Your task to perform on an android device: Open privacy settings Image 0: 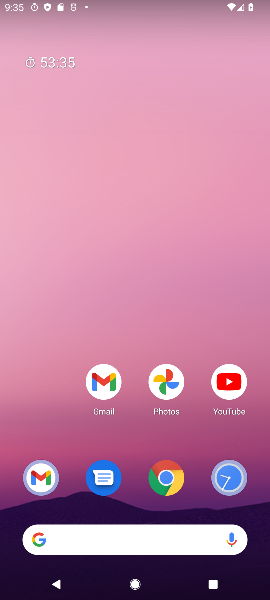
Step 0: press home button
Your task to perform on an android device: Open privacy settings Image 1: 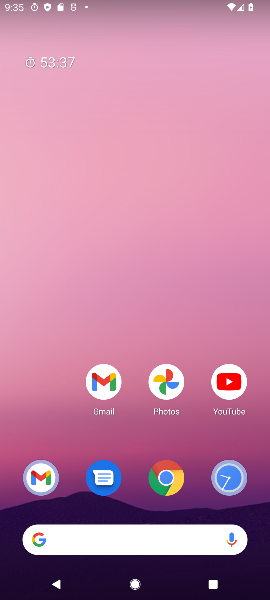
Step 1: drag from (154, 480) to (139, 60)
Your task to perform on an android device: Open privacy settings Image 2: 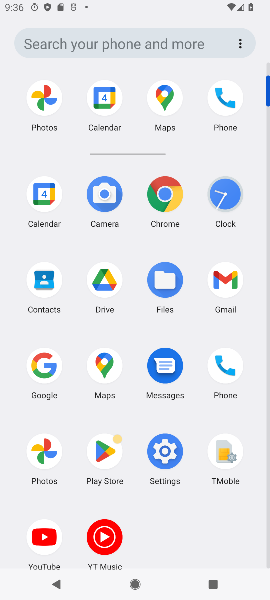
Step 2: click (175, 445)
Your task to perform on an android device: Open privacy settings Image 3: 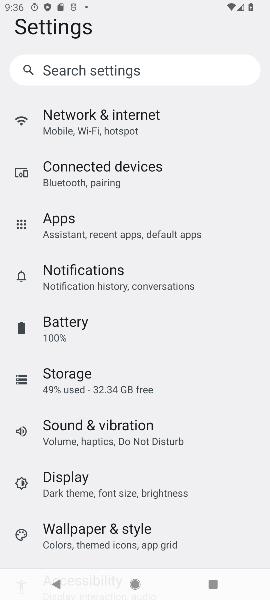
Step 3: drag from (95, 476) to (85, 125)
Your task to perform on an android device: Open privacy settings Image 4: 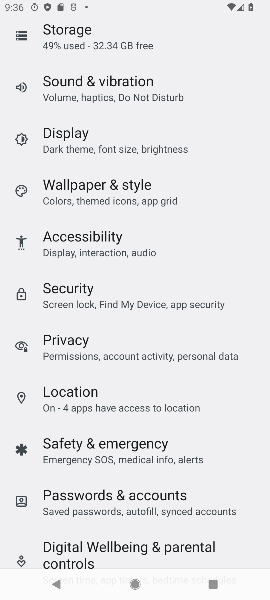
Step 4: drag from (85, 125) to (96, 243)
Your task to perform on an android device: Open privacy settings Image 5: 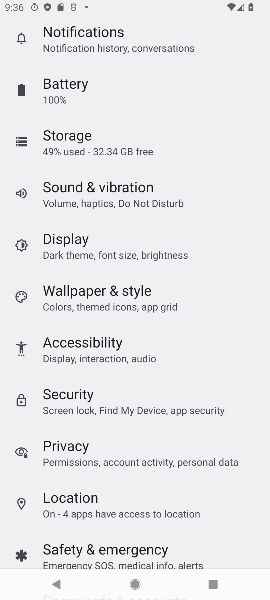
Step 5: click (90, 456)
Your task to perform on an android device: Open privacy settings Image 6: 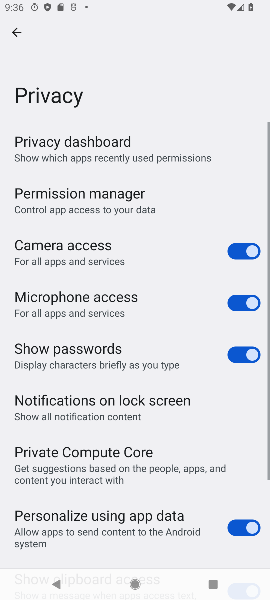
Step 6: task complete